Your task to perform on an android device: Go to CNN.com Image 0: 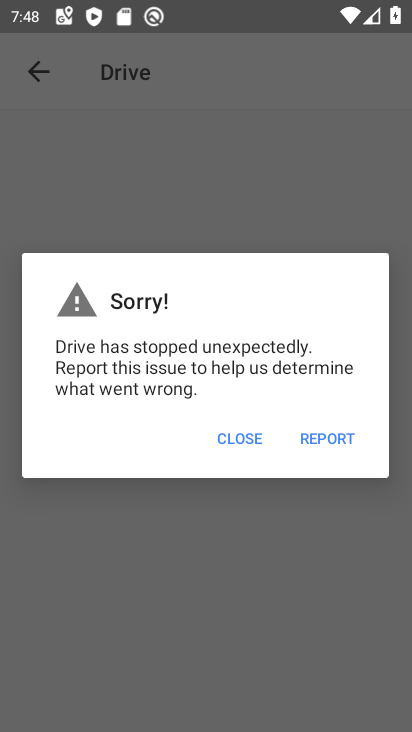
Step 0: press home button
Your task to perform on an android device: Go to CNN.com Image 1: 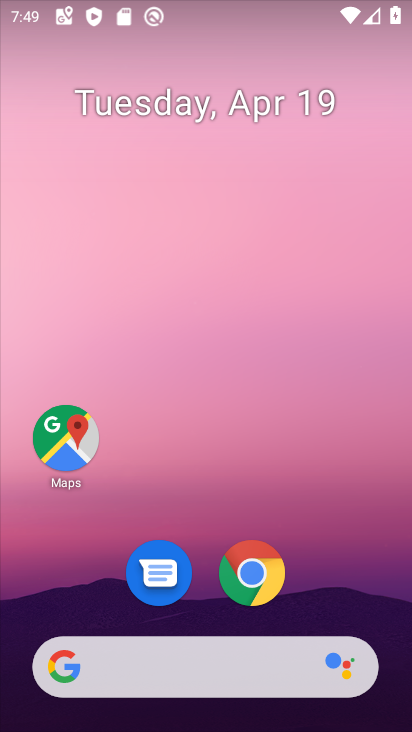
Step 1: click (259, 570)
Your task to perform on an android device: Go to CNN.com Image 2: 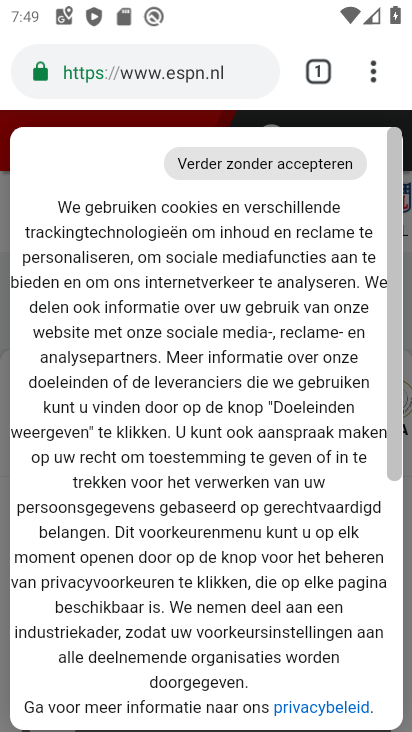
Step 2: click (314, 65)
Your task to perform on an android device: Go to CNN.com Image 3: 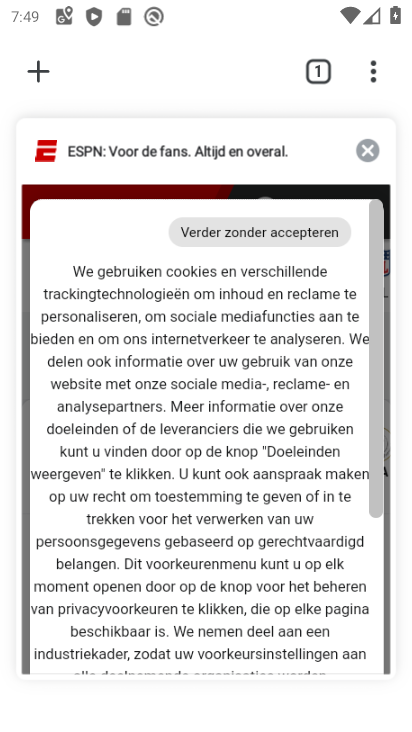
Step 3: click (38, 73)
Your task to perform on an android device: Go to CNN.com Image 4: 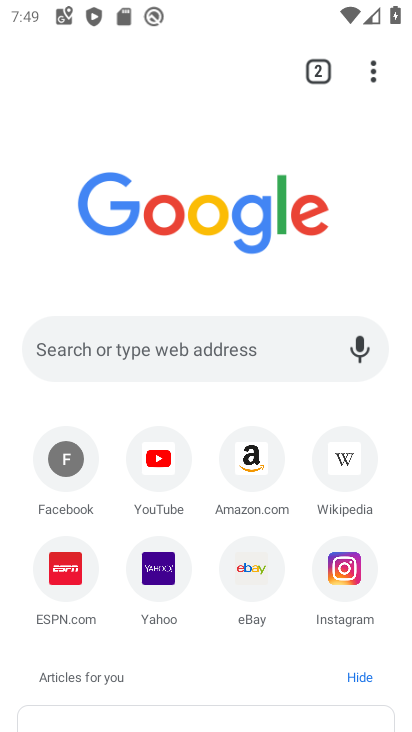
Step 4: click (137, 349)
Your task to perform on an android device: Go to CNN.com Image 5: 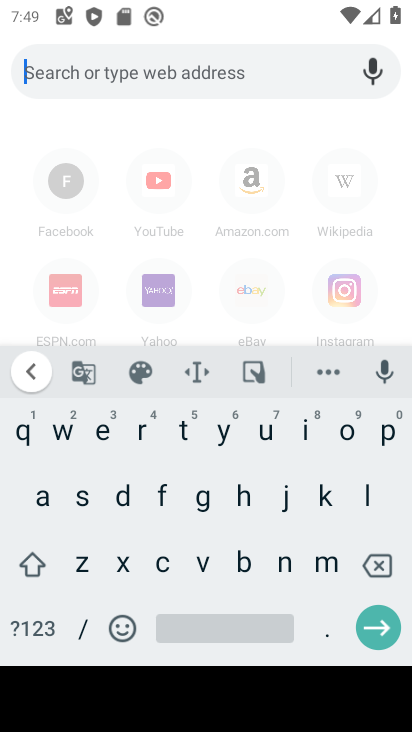
Step 5: click (160, 569)
Your task to perform on an android device: Go to CNN.com Image 6: 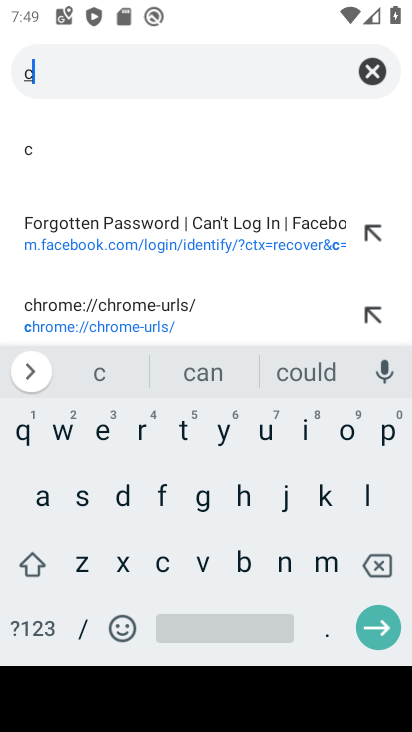
Step 6: click (286, 572)
Your task to perform on an android device: Go to CNN.com Image 7: 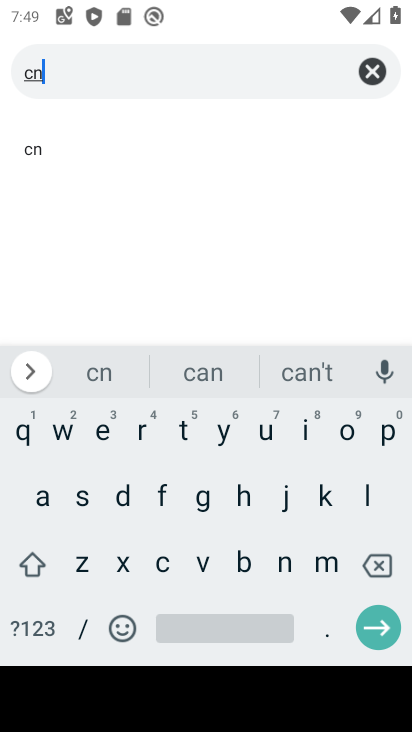
Step 7: click (286, 572)
Your task to perform on an android device: Go to CNN.com Image 8: 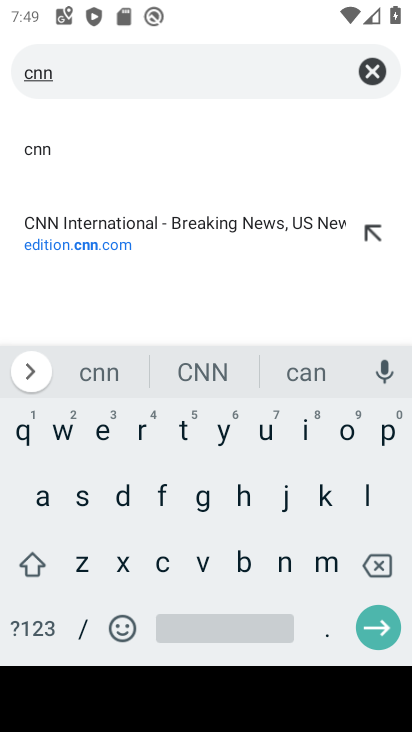
Step 8: click (328, 637)
Your task to perform on an android device: Go to CNN.com Image 9: 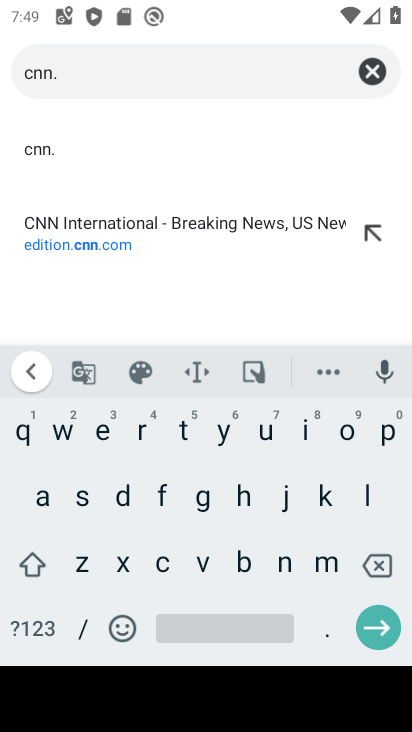
Step 9: click (167, 561)
Your task to perform on an android device: Go to CNN.com Image 10: 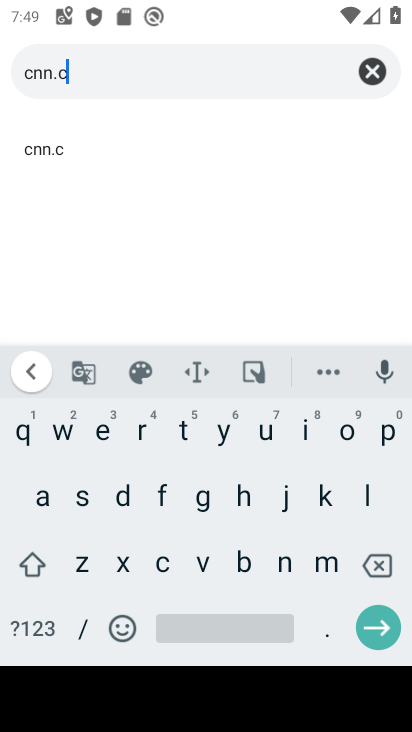
Step 10: click (341, 440)
Your task to perform on an android device: Go to CNN.com Image 11: 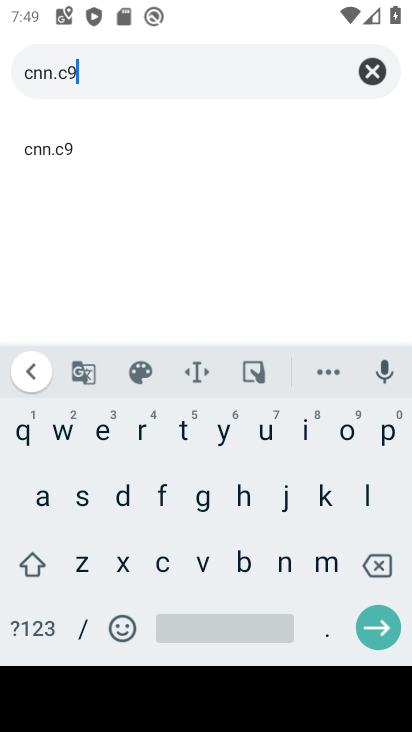
Step 11: click (377, 561)
Your task to perform on an android device: Go to CNN.com Image 12: 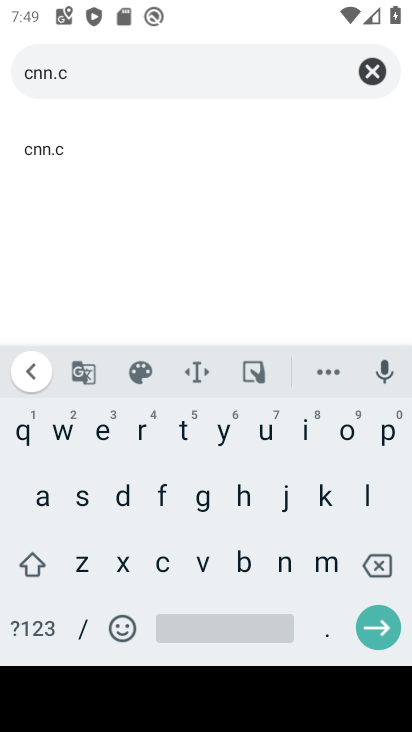
Step 12: click (342, 444)
Your task to perform on an android device: Go to CNN.com Image 13: 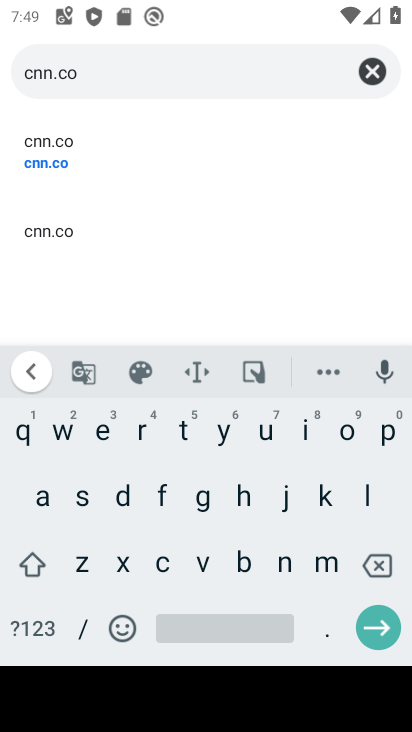
Step 13: click (319, 571)
Your task to perform on an android device: Go to CNN.com Image 14: 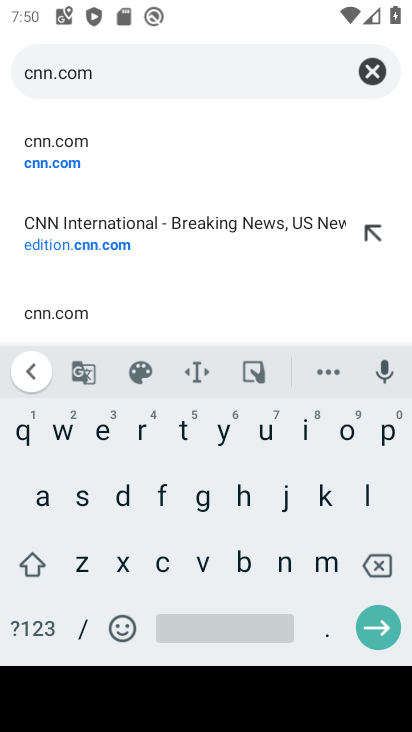
Step 14: click (383, 626)
Your task to perform on an android device: Go to CNN.com Image 15: 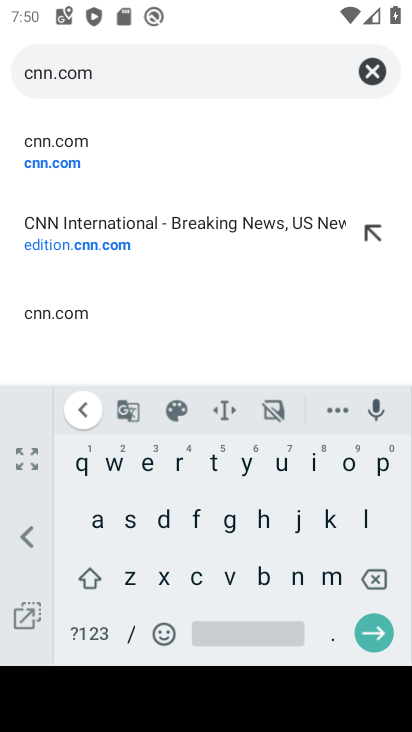
Step 15: click (383, 626)
Your task to perform on an android device: Go to CNN.com Image 16: 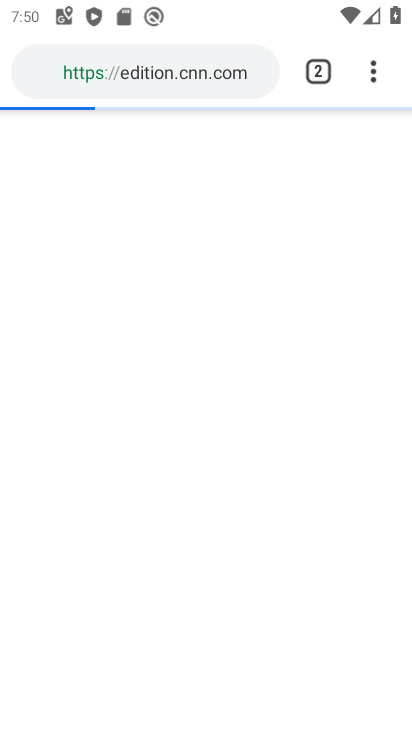
Step 16: click (380, 639)
Your task to perform on an android device: Go to CNN.com Image 17: 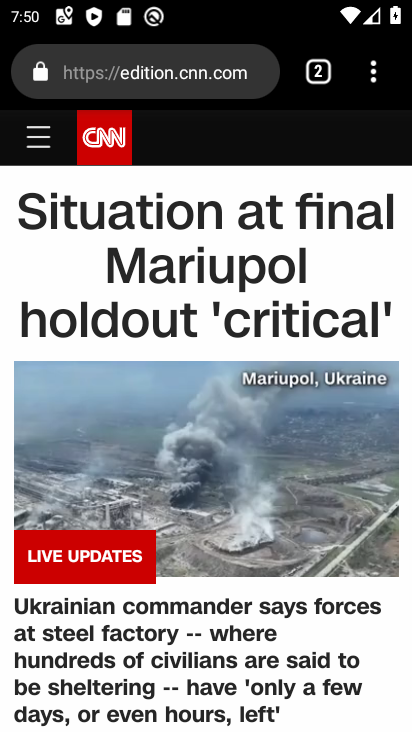
Step 17: task complete